Your task to perform on an android device: check google app version Image 0: 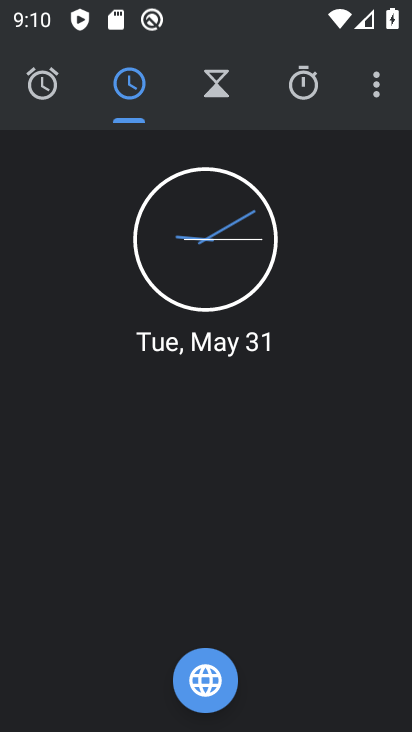
Step 0: press home button
Your task to perform on an android device: check google app version Image 1: 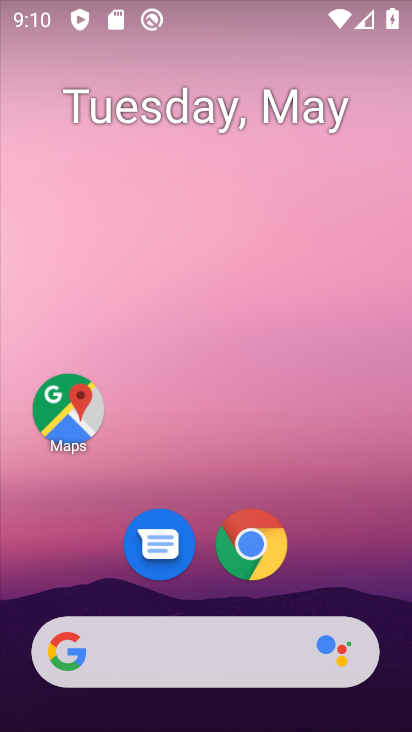
Step 1: drag from (339, 527) to (340, 187)
Your task to perform on an android device: check google app version Image 2: 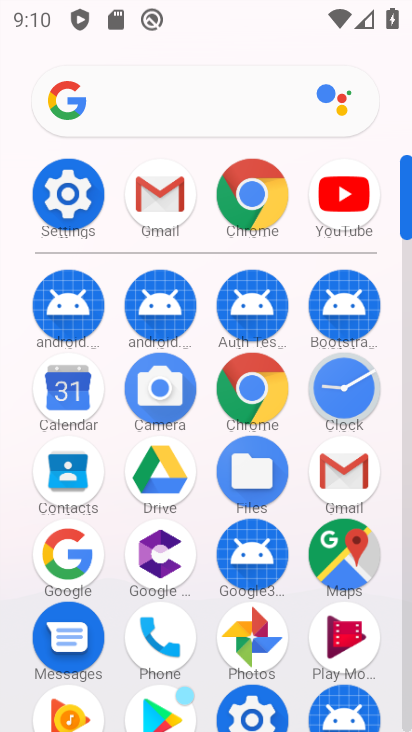
Step 2: click (62, 549)
Your task to perform on an android device: check google app version Image 3: 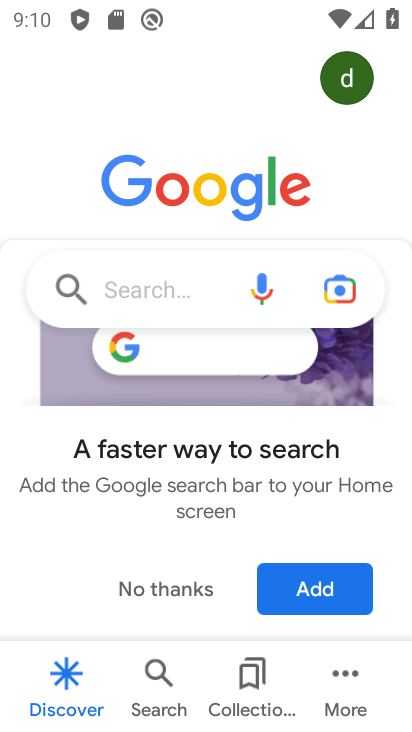
Step 3: click (346, 680)
Your task to perform on an android device: check google app version Image 4: 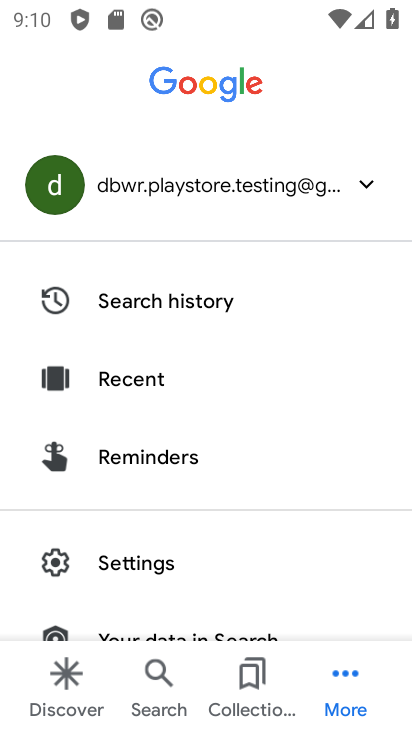
Step 4: click (166, 561)
Your task to perform on an android device: check google app version Image 5: 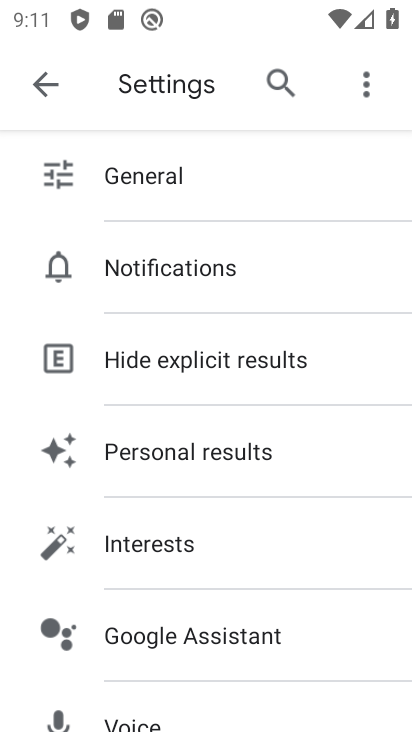
Step 5: drag from (272, 637) to (283, 289)
Your task to perform on an android device: check google app version Image 6: 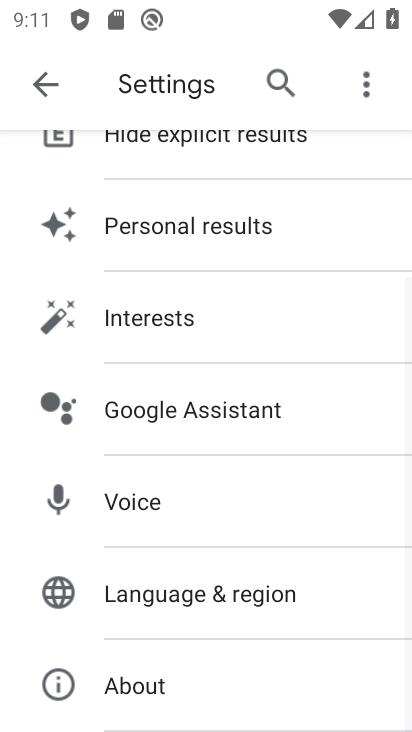
Step 6: click (161, 696)
Your task to perform on an android device: check google app version Image 7: 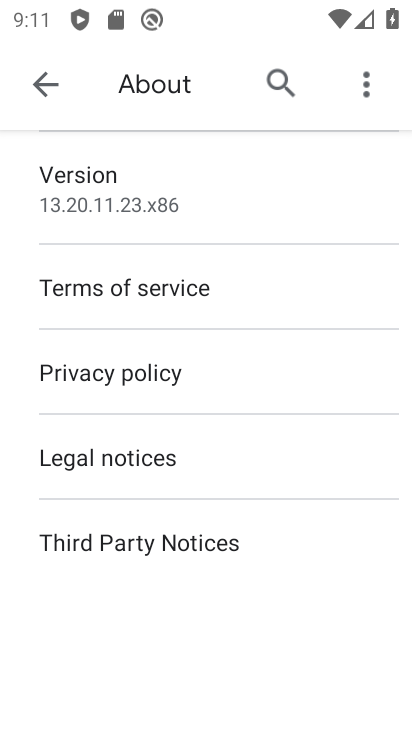
Step 7: task complete